Your task to perform on an android device: Go to settings Image 0: 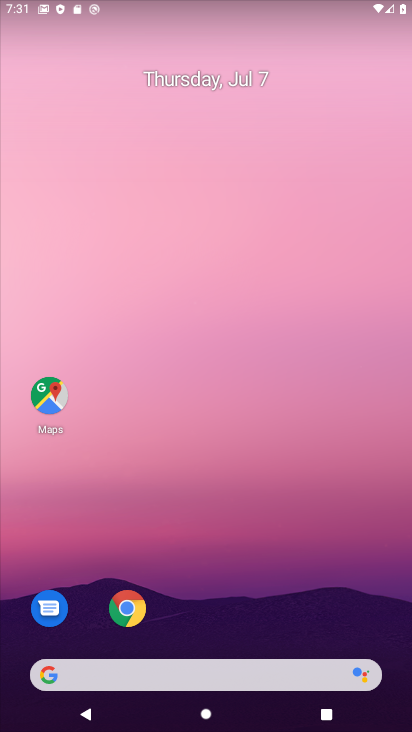
Step 0: drag from (280, 637) to (183, 0)
Your task to perform on an android device: Go to settings Image 1: 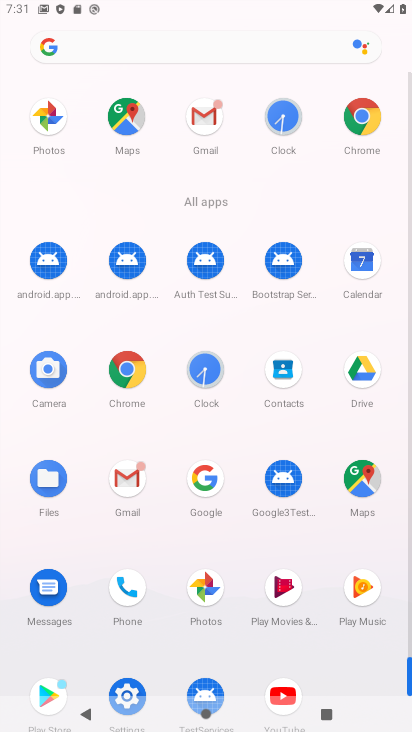
Step 1: drag from (153, 620) to (197, 214)
Your task to perform on an android device: Go to settings Image 2: 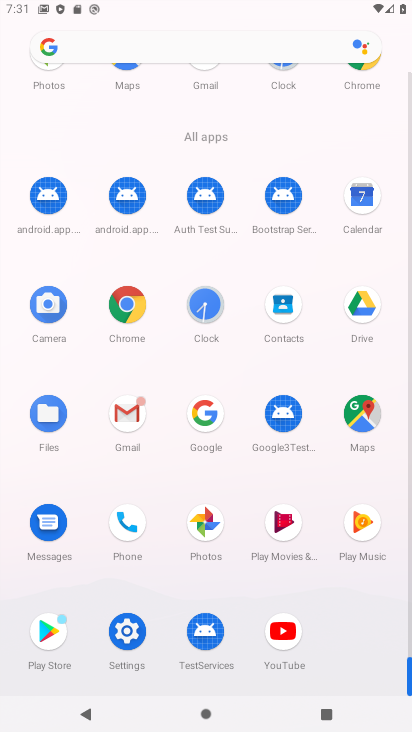
Step 2: click (134, 612)
Your task to perform on an android device: Go to settings Image 3: 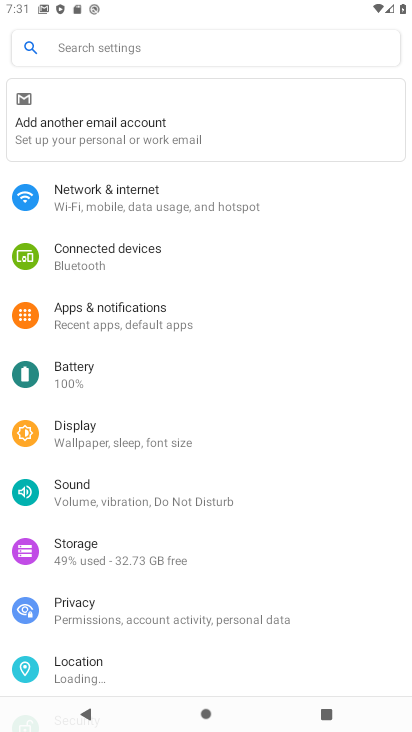
Step 3: task complete